Your task to perform on an android device: Is it going to rain today? Image 0: 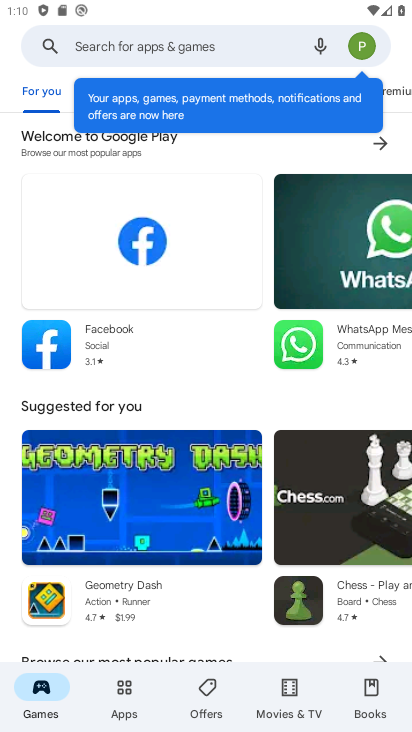
Step 0: press home button
Your task to perform on an android device: Is it going to rain today? Image 1: 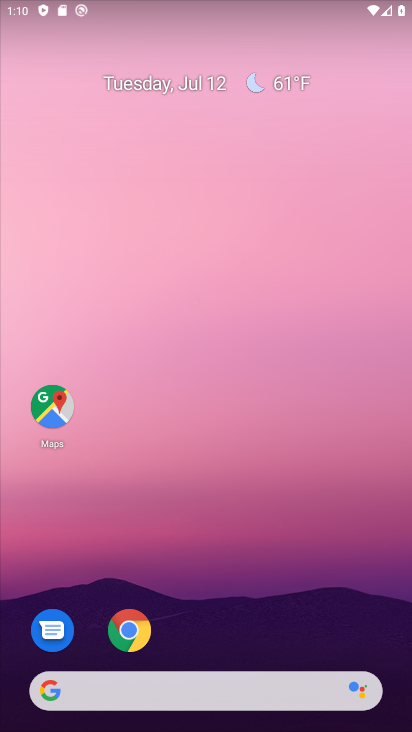
Step 1: drag from (205, 631) to (214, 229)
Your task to perform on an android device: Is it going to rain today? Image 2: 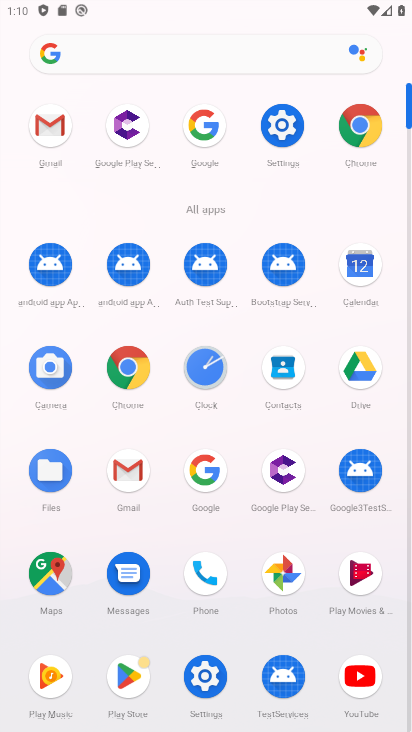
Step 2: click (212, 458)
Your task to perform on an android device: Is it going to rain today? Image 3: 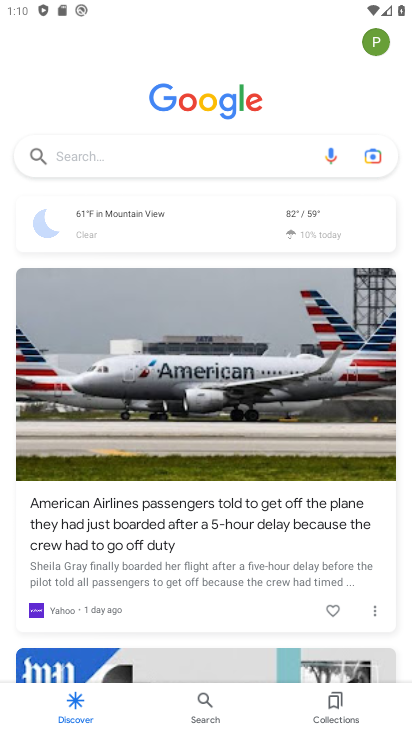
Step 3: click (237, 236)
Your task to perform on an android device: Is it going to rain today? Image 4: 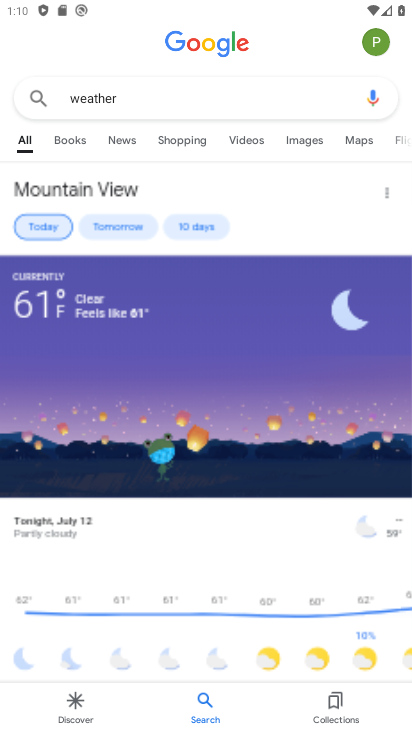
Step 4: task complete